Your task to perform on an android device: Go to notification settings Image 0: 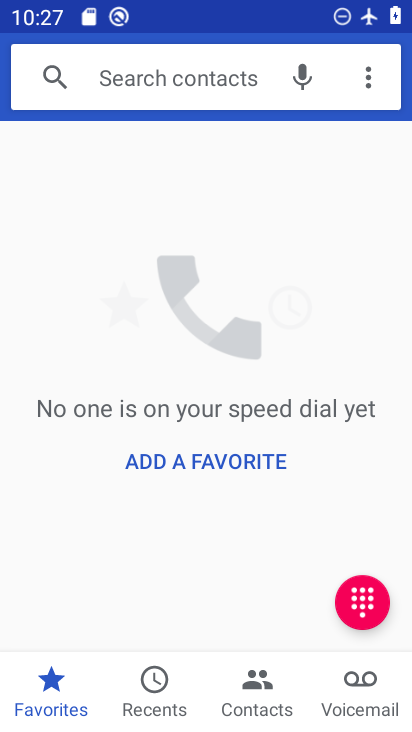
Step 0: press home button
Your task to perform on an android device: Go to notification settings Image 1: 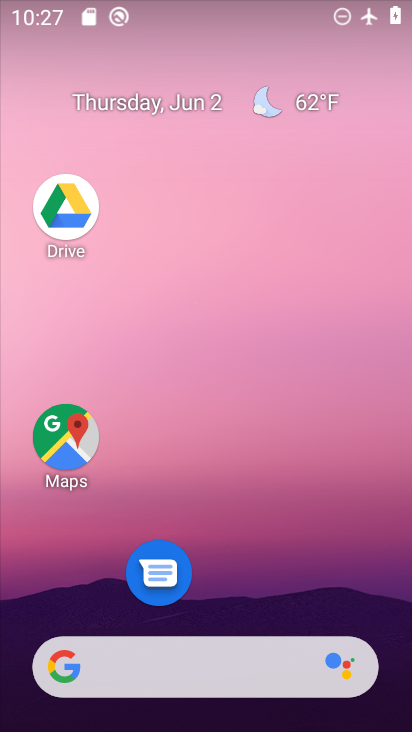
Step 1: drag from (231, 629) to (77, 56)
Your task to perform on an android device: Go to notification settings Image 2: 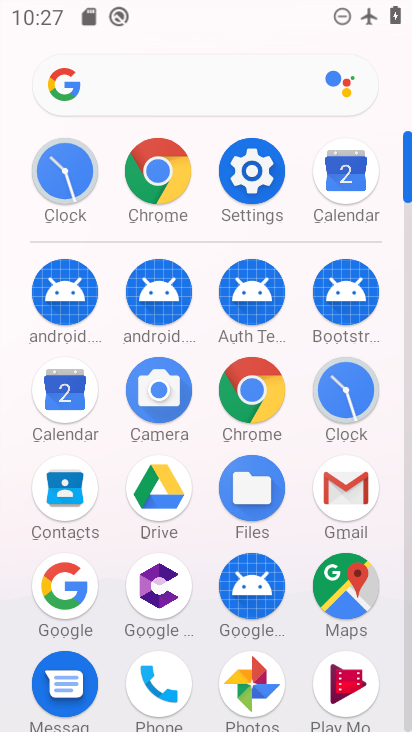
Step 2: click (232, 164)
Your task to perform on an android device: Go to notification settings Image 3: 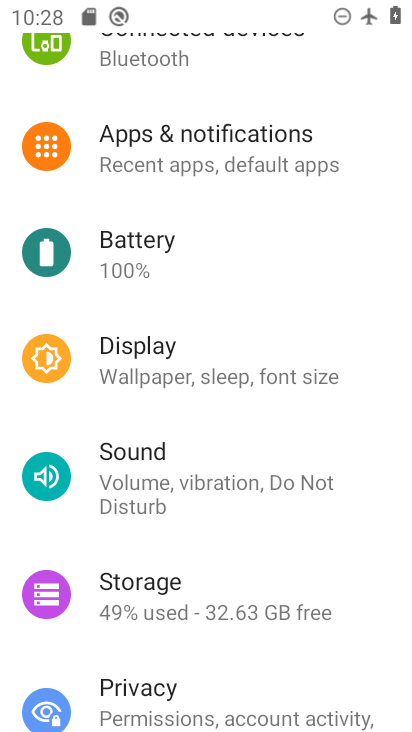
Step 3: click (184, 171)
Your task to perform on an android device: Go to notification settings Image 4: 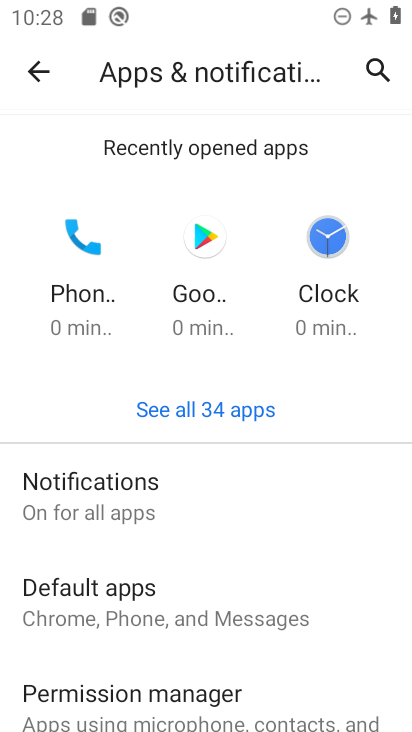
Step 4: click (173, 528)
Your task to perform on an android device: Go to notification settings Image 5: 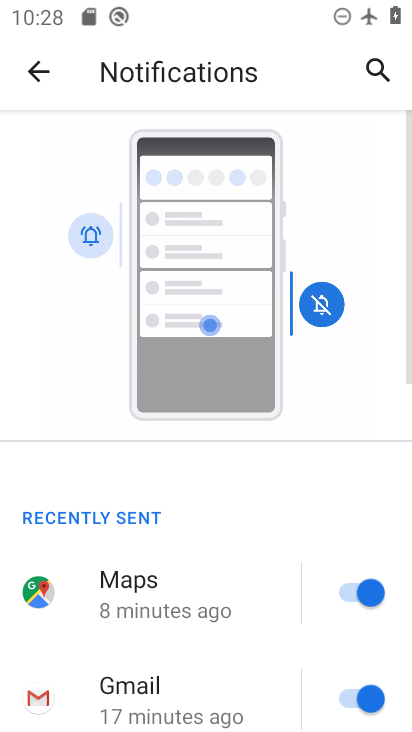
Step 5: task complete